Your task to perform on an android device: Set the phone to "Do not disturb". Image 0: 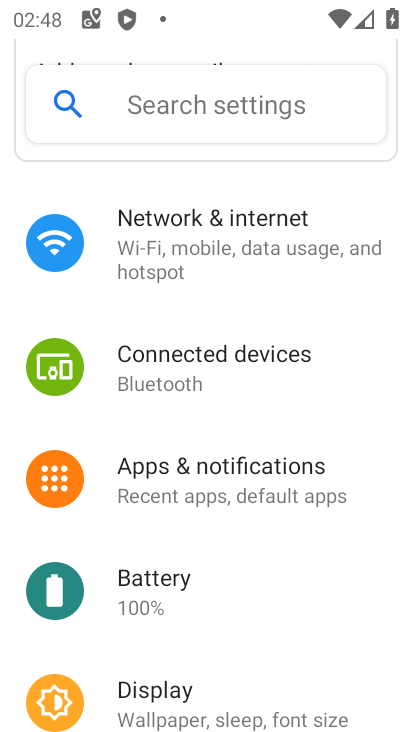
Step 0: drag from (334, 603) to (367, 416)
Your task to perform on an android device: Set the phone to "Do not disturb". Image 1: 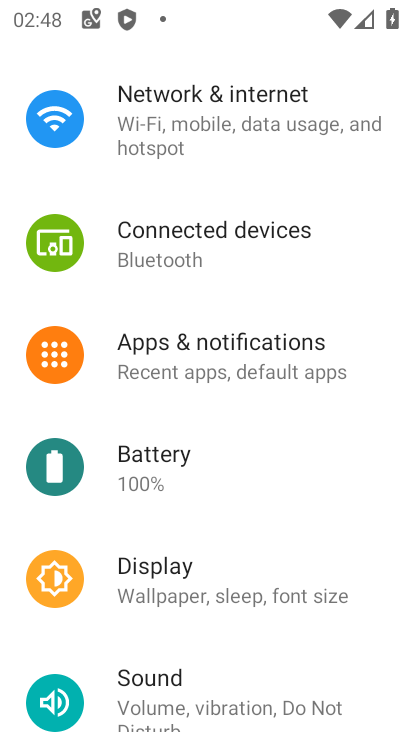
Step 1: drag from (354, 621) to (369, 498)
Your task to perform on an android device: Set the phone to "Do not disturb". Image 2: 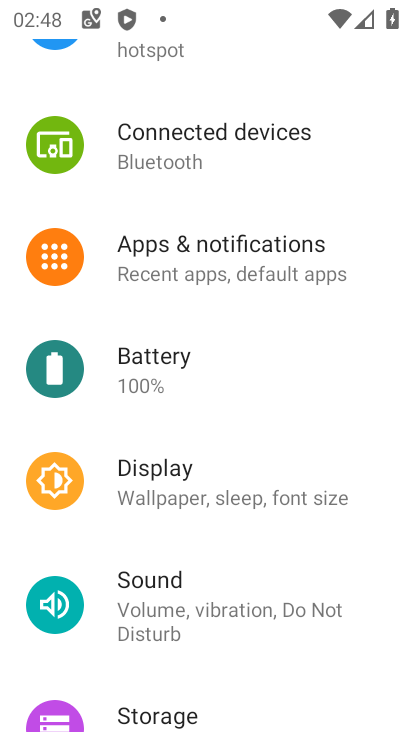
Step 2: drag from (361, 649) to (371, 506)
Your task to perform on an android device: Set the phone to "Do not disturb". Image 3: 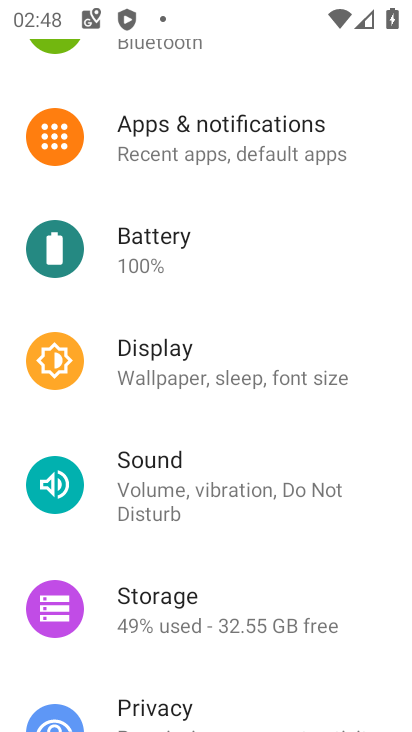
Step 3: drag from (373, 650) to (378, 477)
Your task to perform on an android device: Set the phone to "Do not disturb". Image 4: 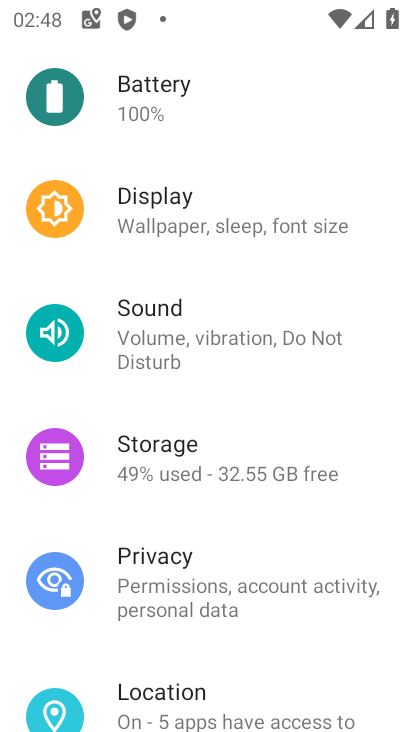
Step 4: drag from (377, 670) to (378, 468)
Your task to perform on an android device: Set the phone to "Do not disturb". Image 5: 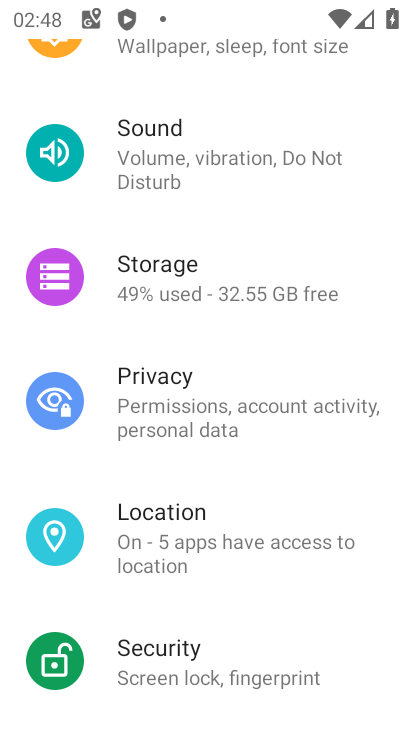
Step 5: drag from (372, 661) to (386, 234)
Your task to perform on an android device: Set the phone to "Do not disturb". Image 6: 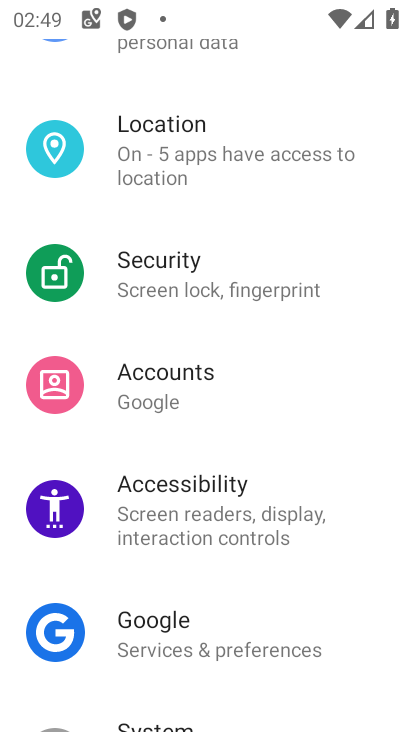
Step 6: drag from (370, 155) to (363, 297)
Your task to perform on an android device: Set the phone to "Do not disturb". Image 7: 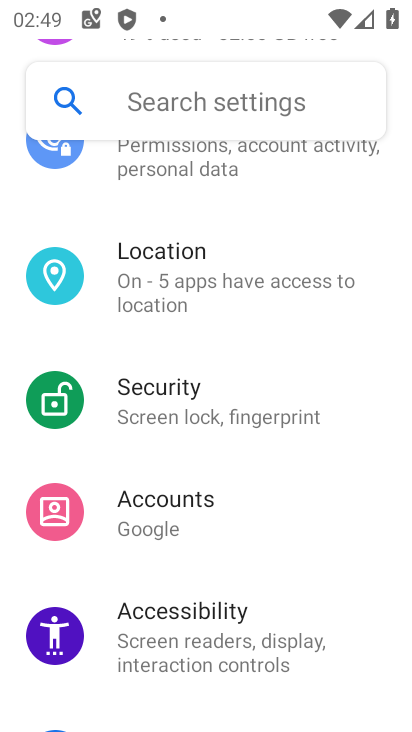
Step 7: drag from (353, 186) to (333, 329)
Your task to perform on an android device: Set the phone to "Do not disturb". Image 8: 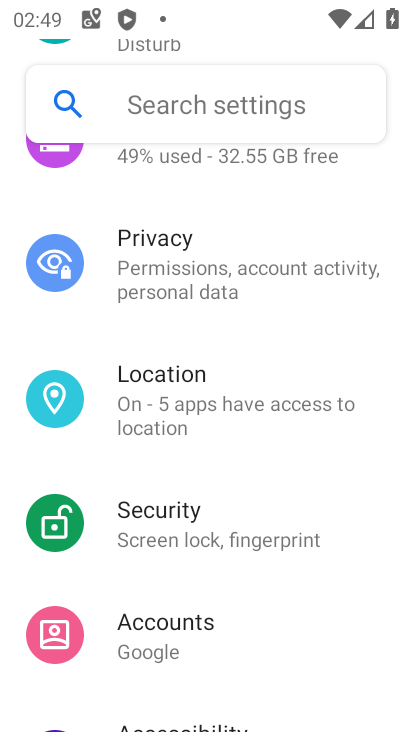
Step 8: drag from (352, 202) to (334, 370)
Your task to perform on an android device: Set the phone to "Do not disturb". Image 9: 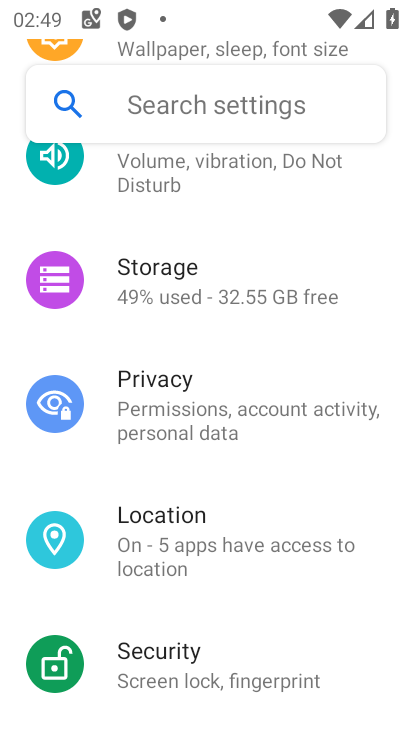
Step 9: drag from (323, 215) to (314, 390)
Your task to perform on an android device: Set the phone to "Do not disturb". Image 10: 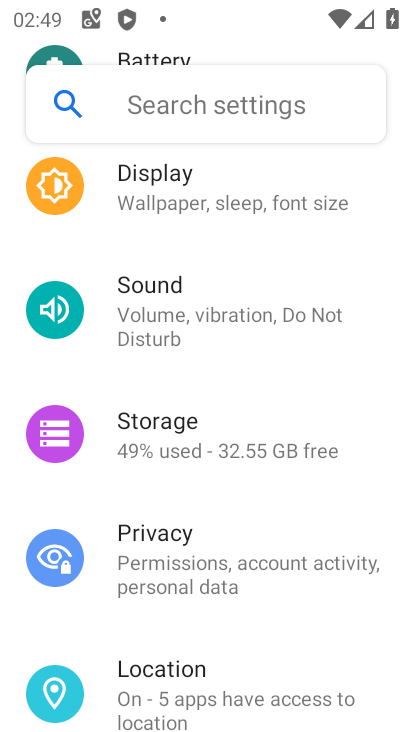
Step 10: drag from (311, 171) to (285, 345)
Your task to perform on an android device: Set the phone to "Do not disturb". Image 11: 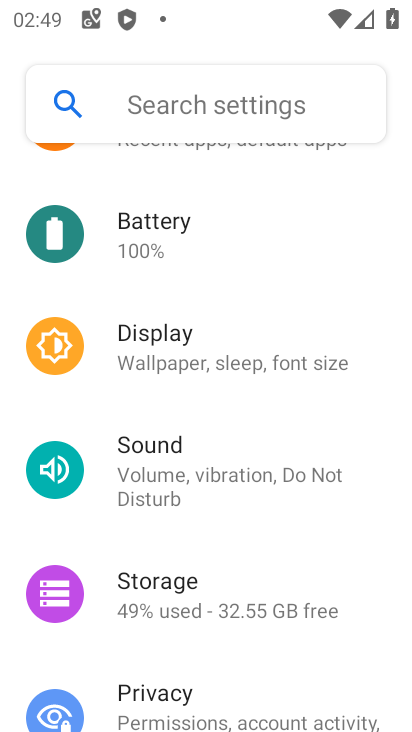
Step 11: click (267, 474)
Your task to perform on an android device: Set the phone to "Do not disturb". Image 12: 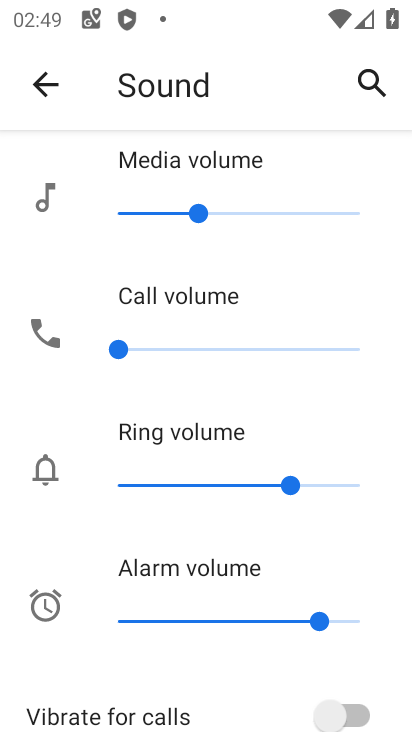
Step 12: drag from (304, 530) to (325, 267)
Your task to perform on an android device: Set the phone to "Do not disturb". Image 13: 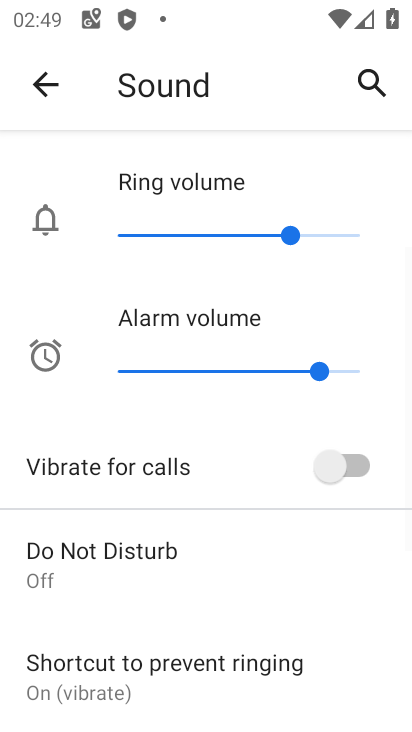
Step 13: click (131, 569)
Your task to perform on an android device: Set the phone to "Do not disturb". Image 14: 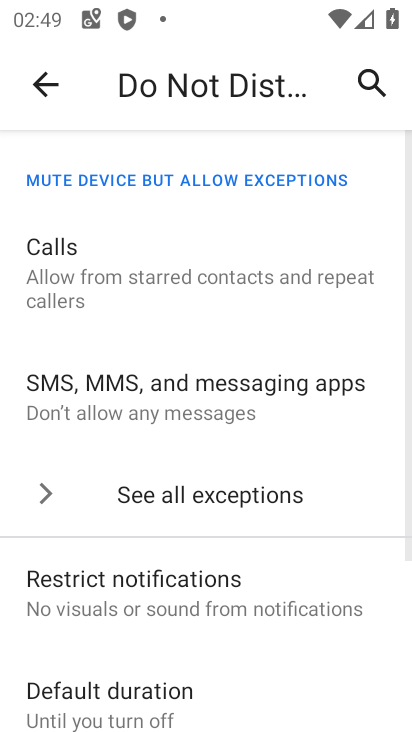
Step 14: drag from (254, 594) to (287, 173)
Your task to perform on an android device: Set the phone to "Do not disturb". Image 15: 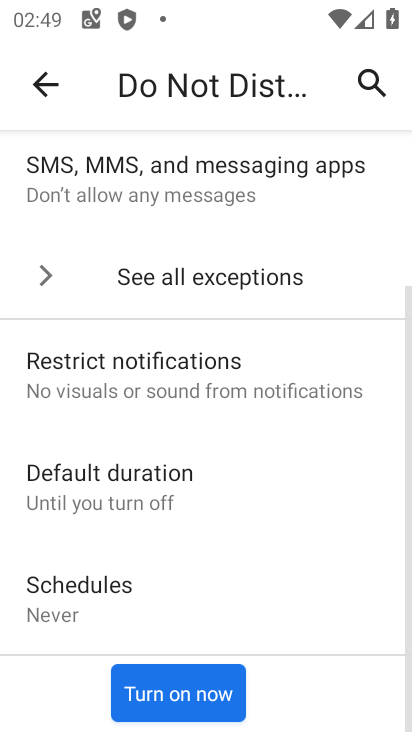
Step 15: click (194, 681)
Your task to perform on an android device: Set the phone to "Do not disturb". Image 16: 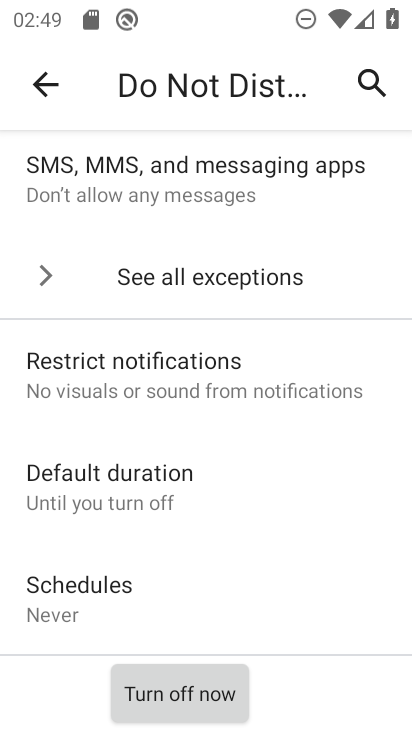
Step 16: task complete